Your task to perform on an android device: Open location settings Image 0: 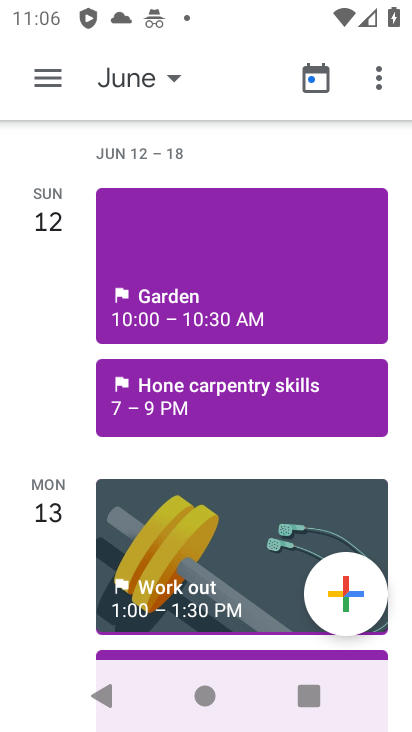
Step 0: press home button
Your task to perform on an android device: Open location settings Image 1: 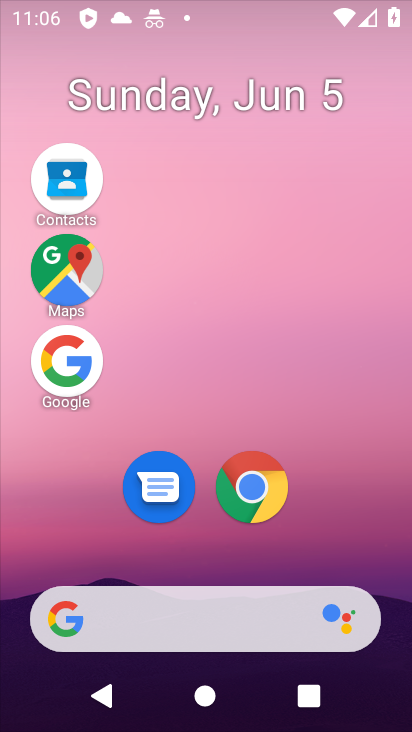
Step 1: drag from (179, 610) to (213, 109)
Your task to perform on an android device: Open location settings Image 2: 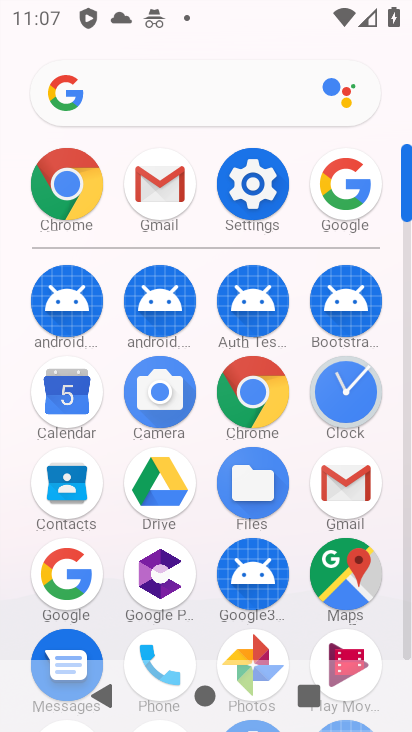
Step 2: click (249, 191)
Your task to perform on an android device: Open location settings Image 3: 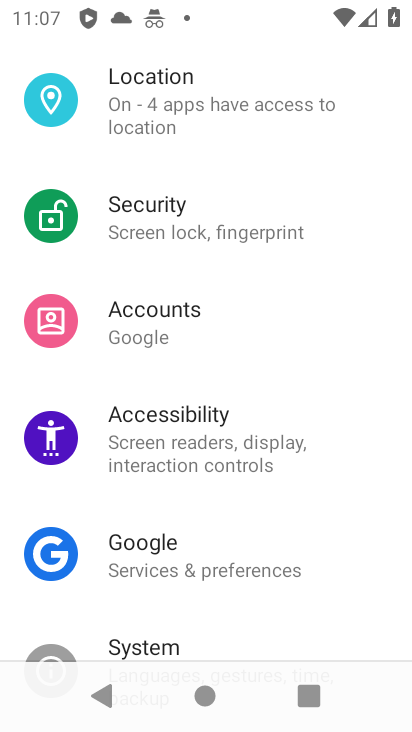
Step 3: drag from (182, 463) to (225, 181)
Your task to perform on an android device: Open location settings Image 4: 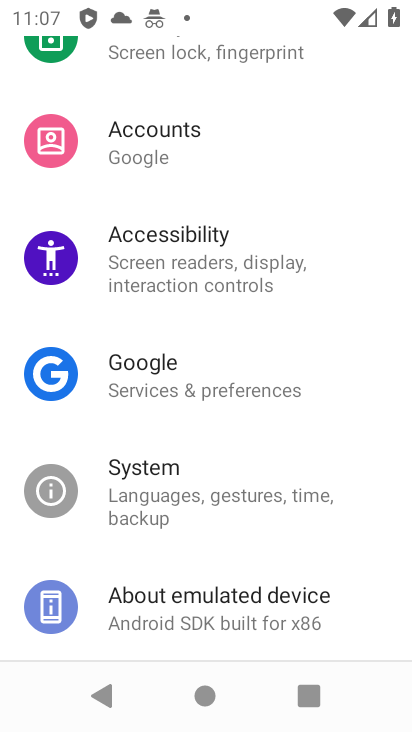
Step 4: drag from (198, 506) to (212, 676)
Your task to perform on an android device: Open location settings Image 5: 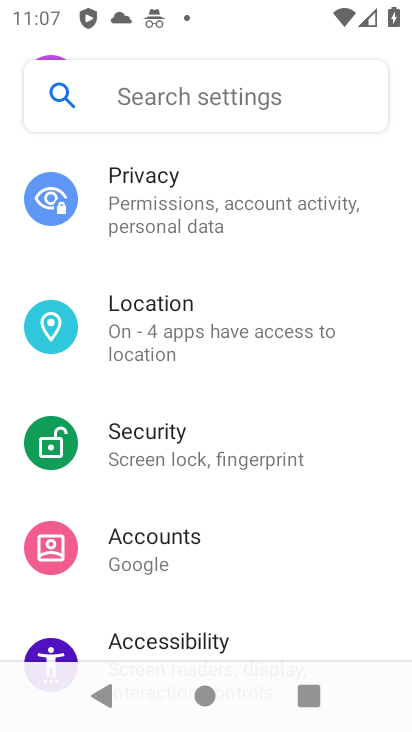
Step 5: click (200, 318)
Your task to perform on an android device: Open location settings Image 6: 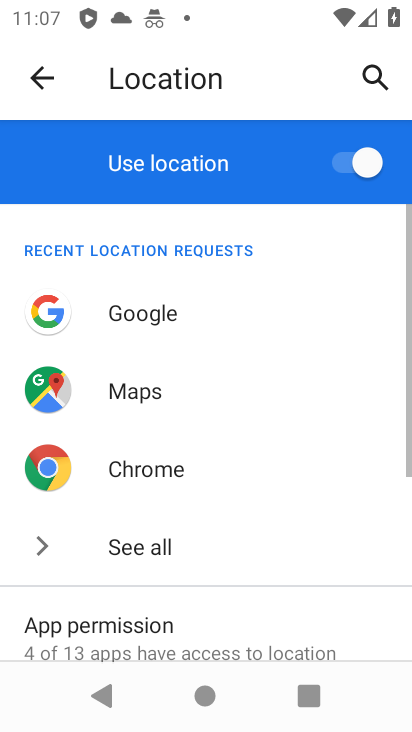
Step 6: task complete